Your task to perform on an android device: Open accessibility settings Image 0: 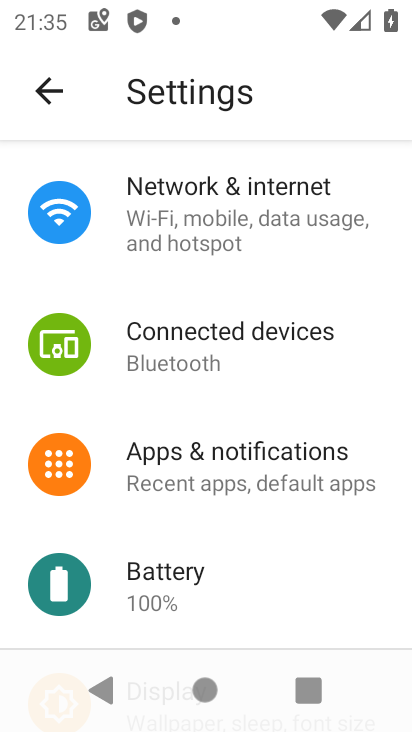
Step 0: press home button
Your task to perform on an android device: Open accessibility settings Image 1: 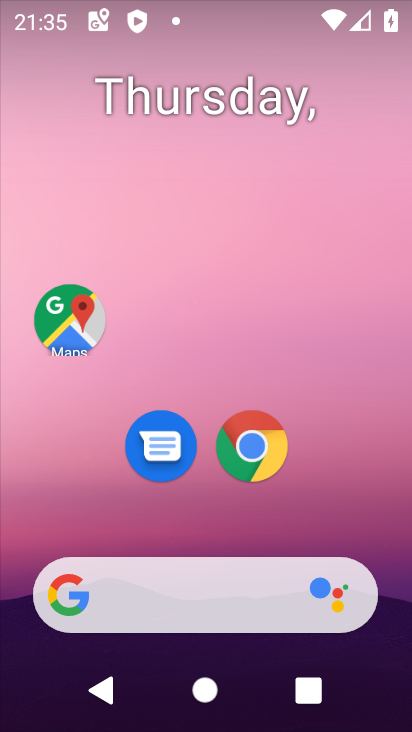
Step 1: drag from (373, 663) to (411, 198)
Your task to perform on an android device: Open accessibility settings Image 2: 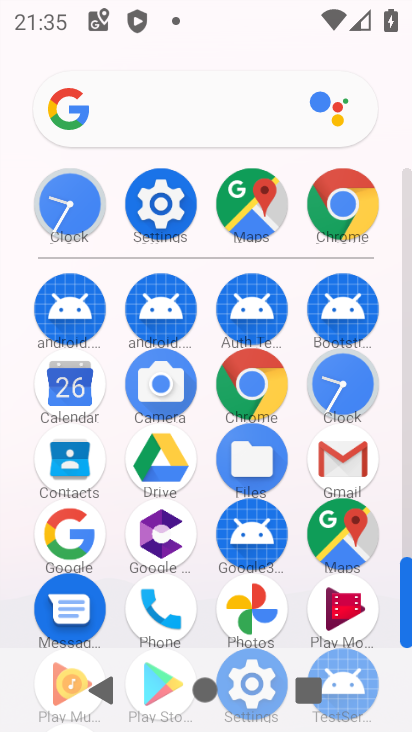
Step 2: drag from (234, 266) to (208, 3)
Your task to perform on an android device: Open accessibility settings Image 3: 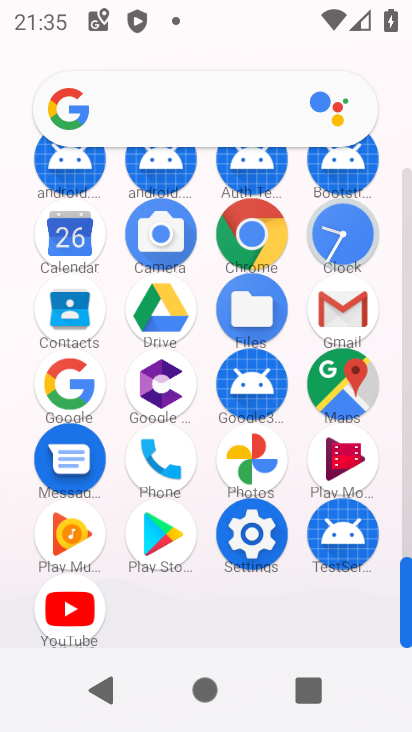
Step 3: click (232, 534)
Your task to perform on an android device: Open accessibility settings Image 4: 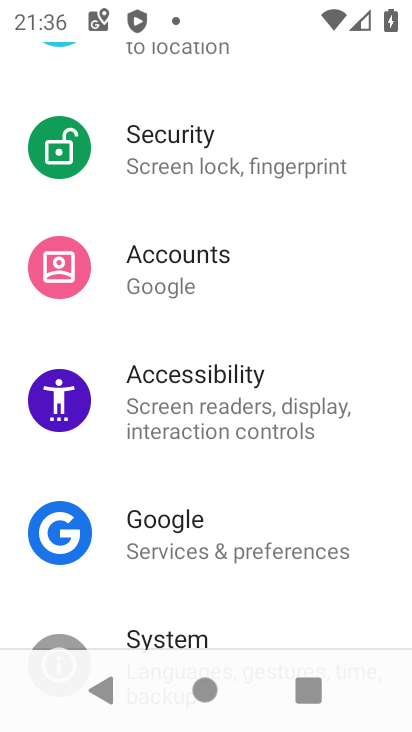
Step 4: click (133, 422)
Your task to perform on an android device: Open accessibility settings Image 5: 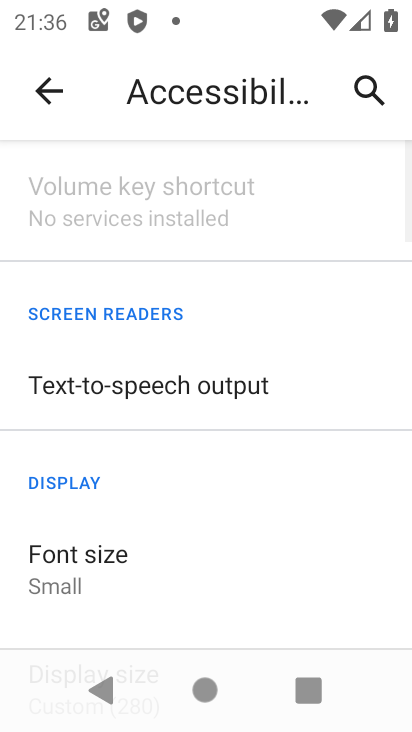
Step 5: task complete